Your task to perform on an android device: Search for Mexican restaurants on Maps Image 0: 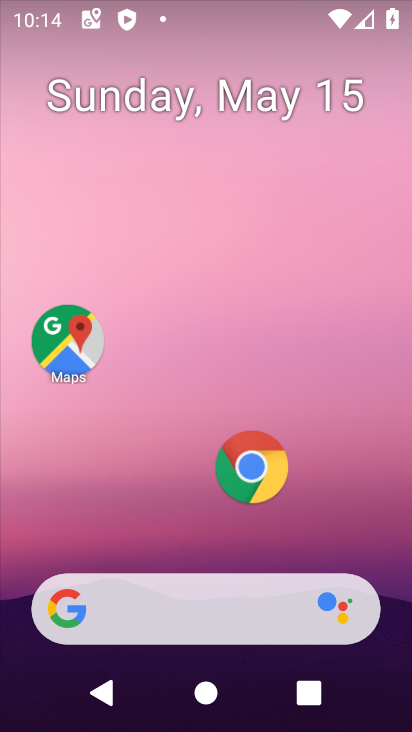
Step 0: drag from (178, 506) to (230, 272)
Your task to perform on an android device: Search for Mexican restaurants on Maps Image 1: 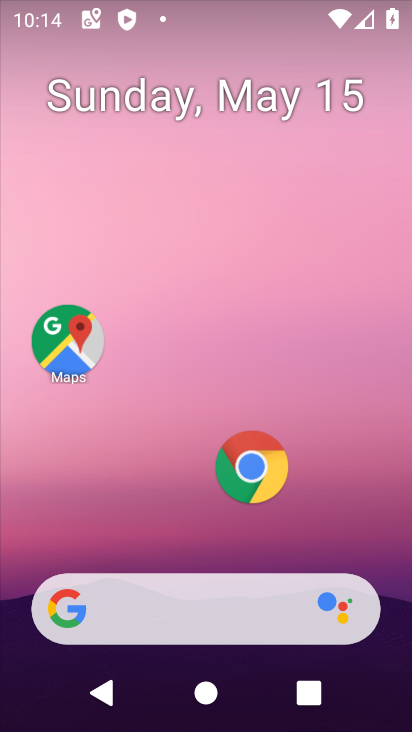
Step 1: drag from (223, 540) to (366, 102)
Your task to perform on an android device: Search for Mexican restaurants on Maps Image 2: 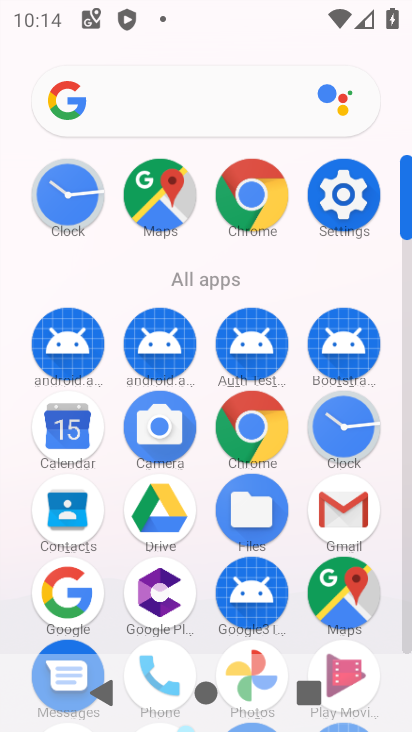
Step 2: click (338, 608)
Your task to perform on an android device: Search for Mexican restaurants on Maps Image 3: 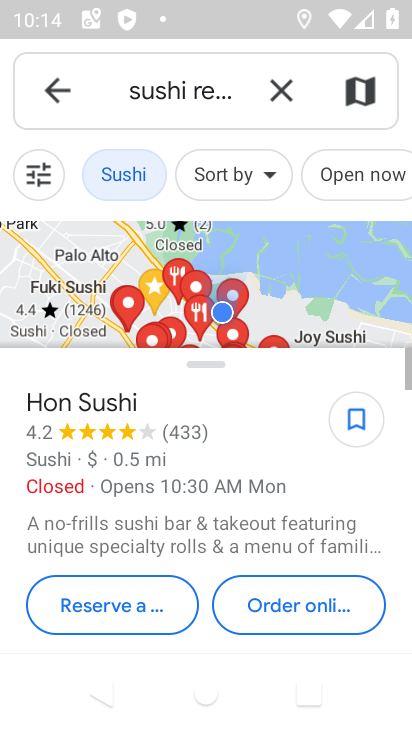
Step 3: drag from (205, 524) to (351, 69)
Your task to perform on an android device: Search for Mexican restaurants on Maps Image 4: 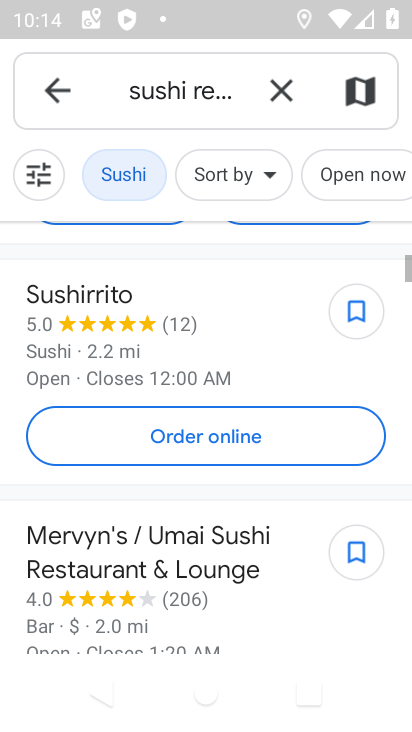
Step 4: drag from (219, 611) to (207, 194)
Your task to perform on an android device: Search for Mexican restaurants on Maps Image 5: 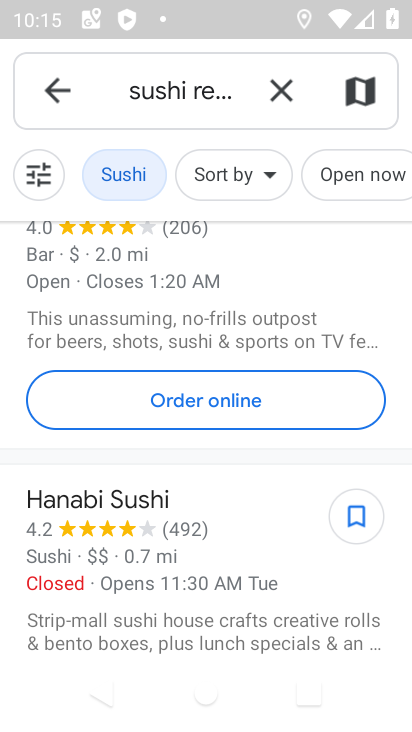
Step 5: click (78, 87)
Your task to perform on an android device: Search for Mexican restaurants on Maps Image 6: 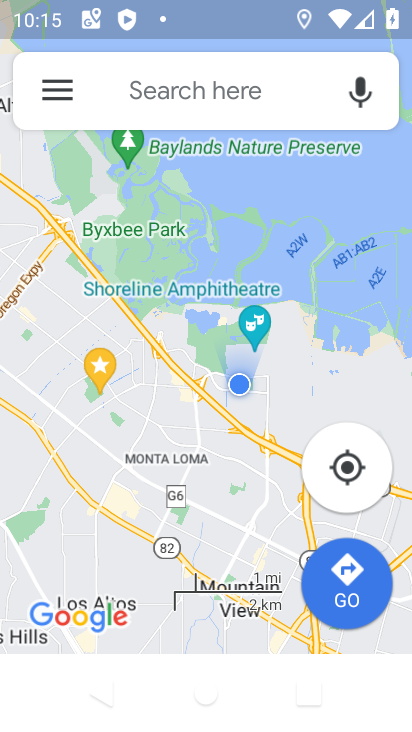
Step 6: click (181, 98)
Your task to perform on an android device: Search for Mexican restaurants on Maps Image 7: 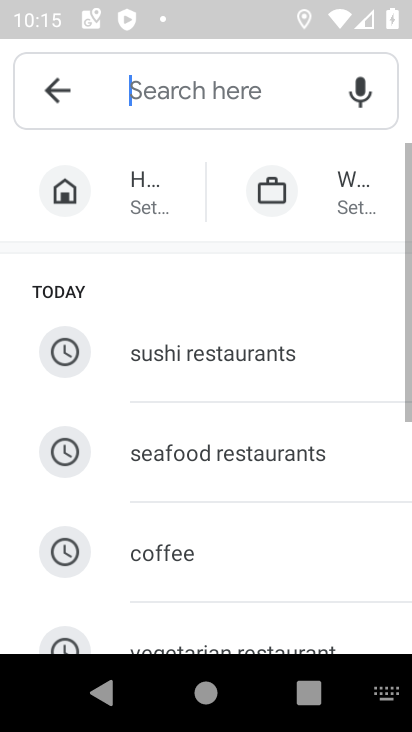
Step 7: drag from (201, 519) to (176, 59)
Your task to perform on an android device: Search for Mexican restaurants on Maps Image 8: 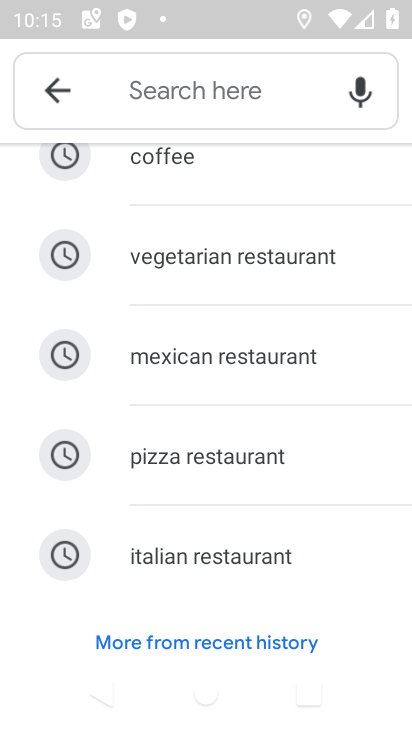
Step 8: click (224, 370)
Your task to perform on an android device: Search for Mexican restaurants on Maps Image 9: 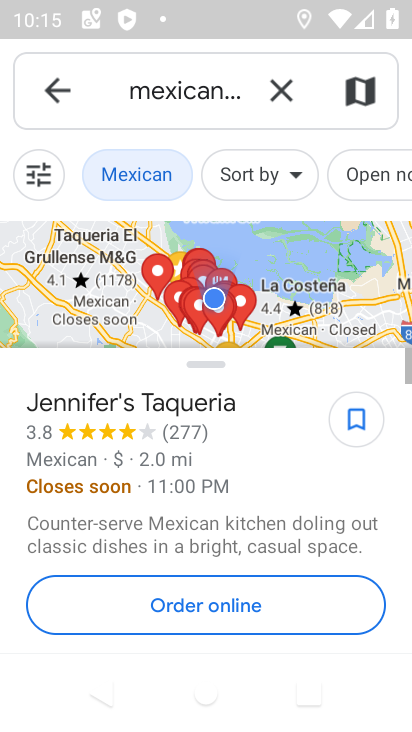
Step 9: task complete